Your task to perform on an android device: turn on javascript in the chrome app Image 0: 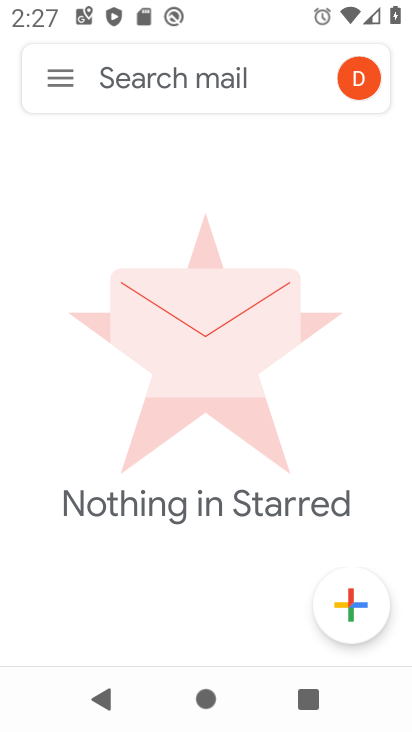
Step 0: press home button
Your task to perform on an android device: turn on javascript in the chrome app Image 1: 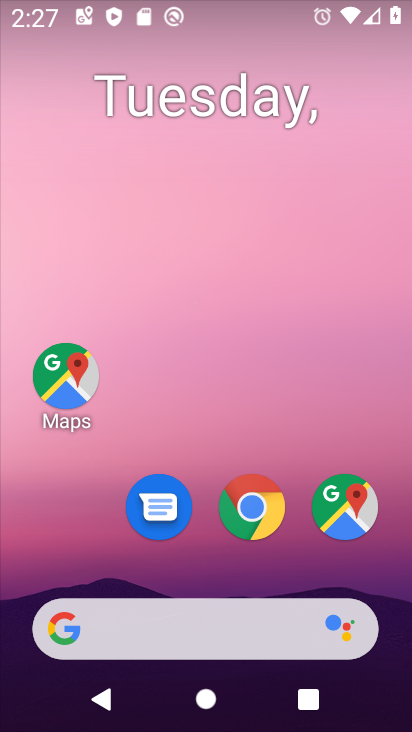
Step 1: click (248, 506)
Your task to perform on an android device: turn on javascript in the chrome app Image 2: 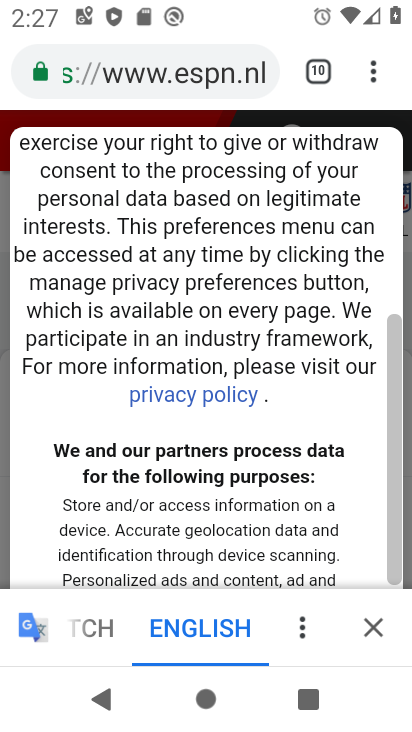
Step 2: click (374, 65)
Your task to perform on an android device: turn on javascript in the chrome app Image 3: 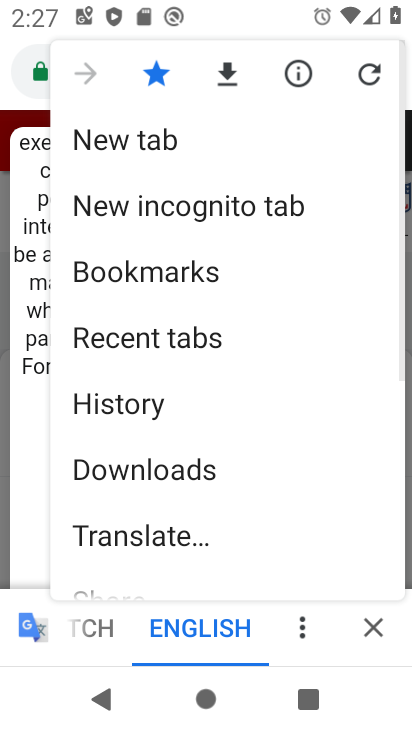
Step 3: drag from (162, 387) to (200, 232)
Your task to perform on an android device: turn on javascript in the chrome app Image 4: 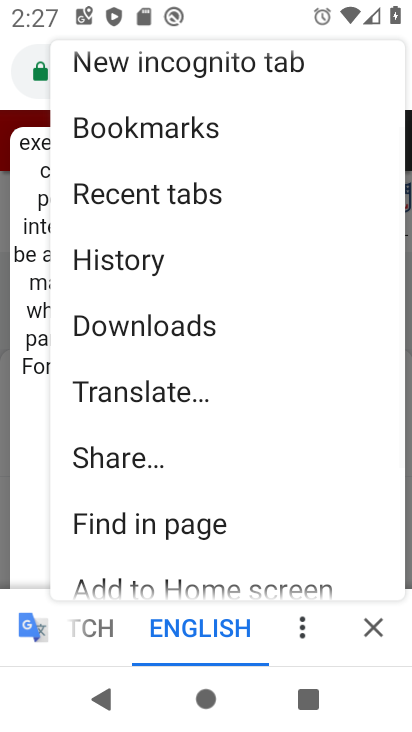
Step 4: drag from (156, 572) to (211, 308)
Your task to perform on an android device: turn on javascript in the chrome app Image 5: 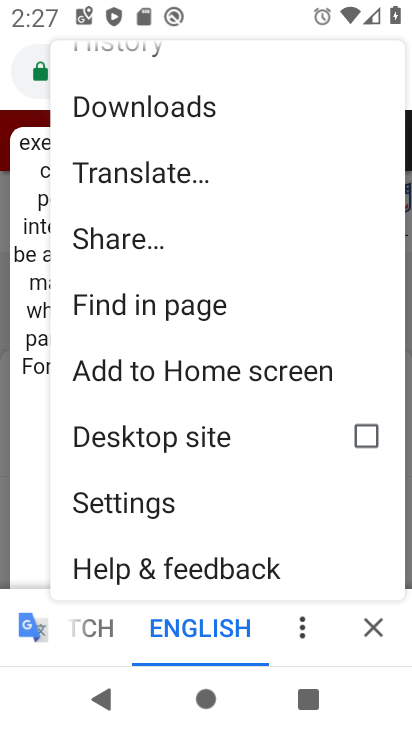
Step 5: click (140, 502)
Your task to perform on an android device: turn on javascript in the chrome app Image 6: 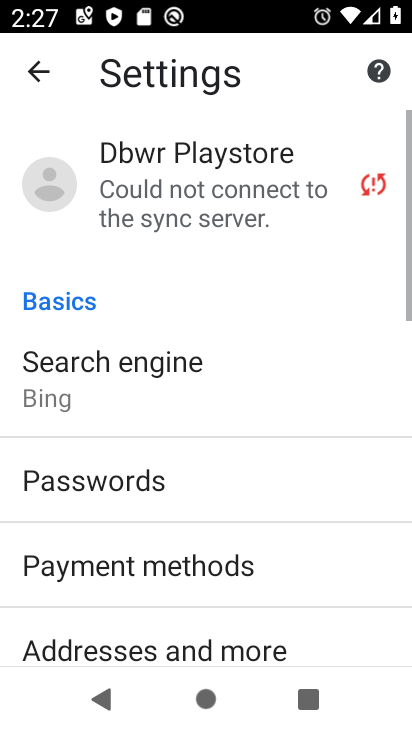
Step 6: drag from (217, 587) to (277, 251)
Your task to perform on an android device: turn on javascript in the chrome app Image 7: 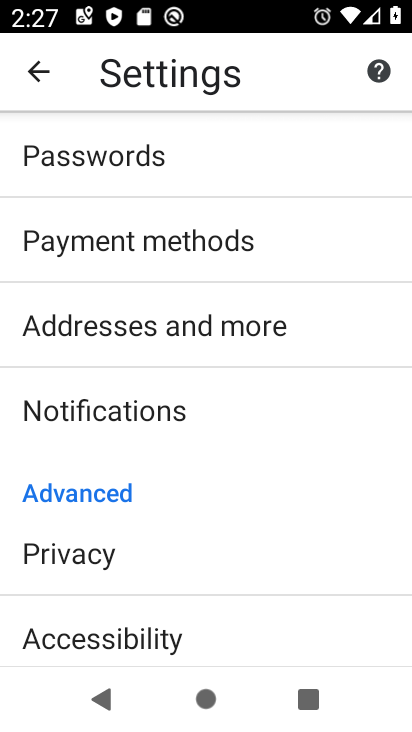
Step 7: drag from (182, 615) to (265, 288)
Your task to perform on an android device: turn on javascript in the chrome app Image 8: 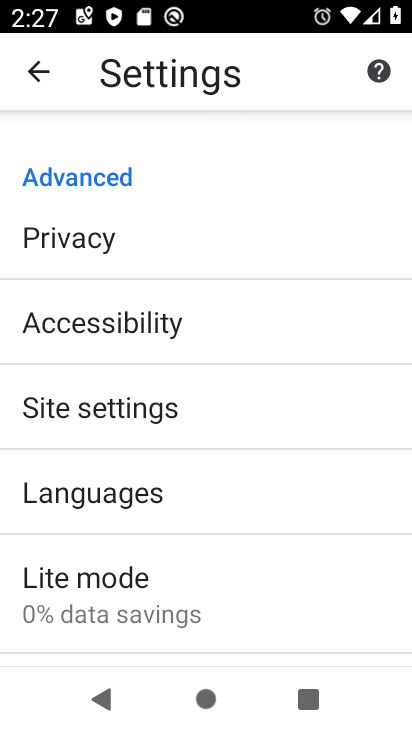
Step 8: click (142, 417)
Your task to perform on an android device: turn on javascript in the chrome app Image 9: 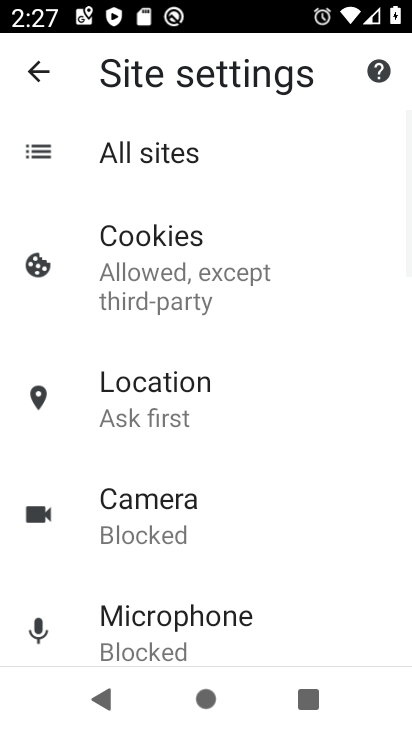
Step 9: drag from (207, 541) to (268, 247)
Your task to perform on an android device: turn on javascript in the chrome app Image 10: 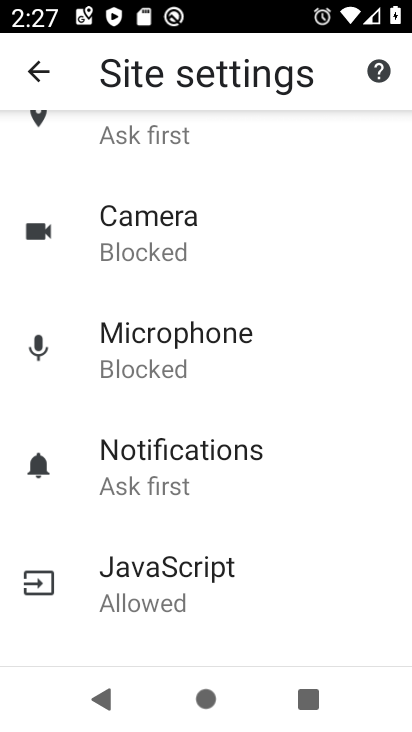
Step 10: click (223, 585)
Your task to perform on an android device: turn on javascript in the chrome app Image 11: 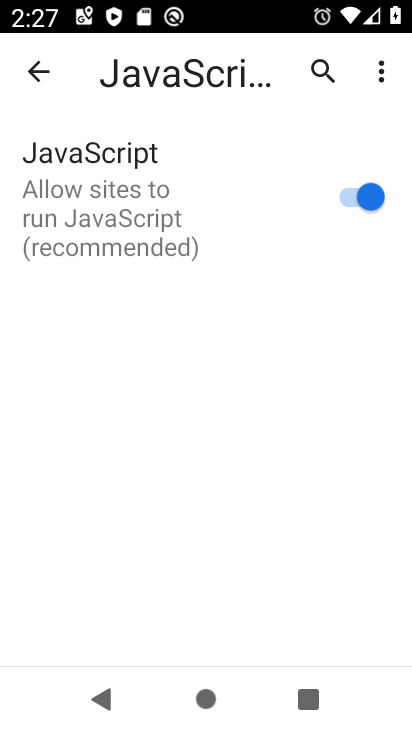
Step 11: task complete